Your task to perform on an android device: turn off sleep mode Image 0: 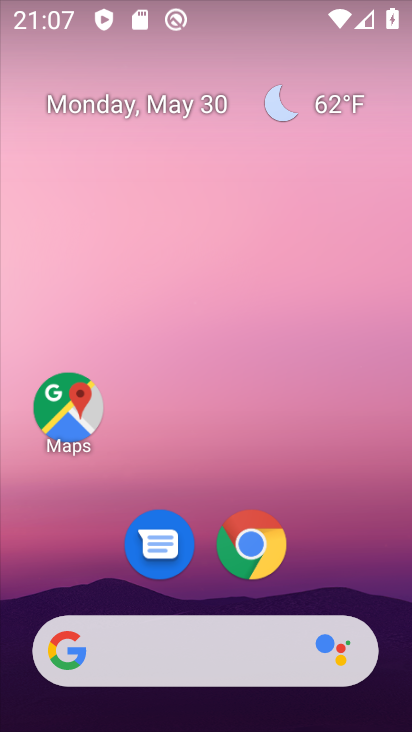
Step 0: drag from (361, 558) to (249, 64)
Your task to perform on an android device: turn off sleep mode Image 1: 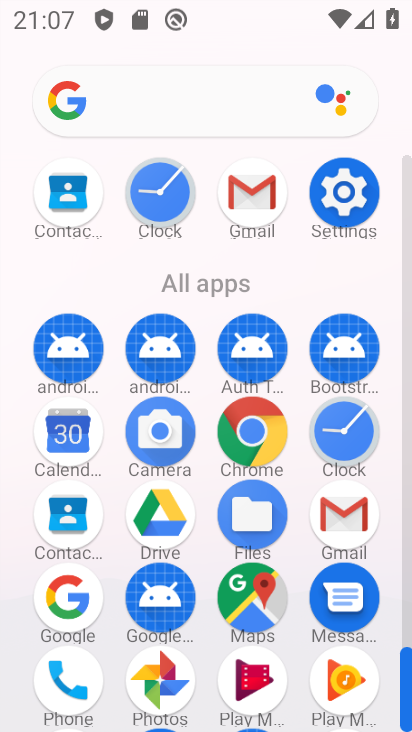
Step 1: click (346, 191)
Your task to perform on an android device: turn off sleep mode Image 2: 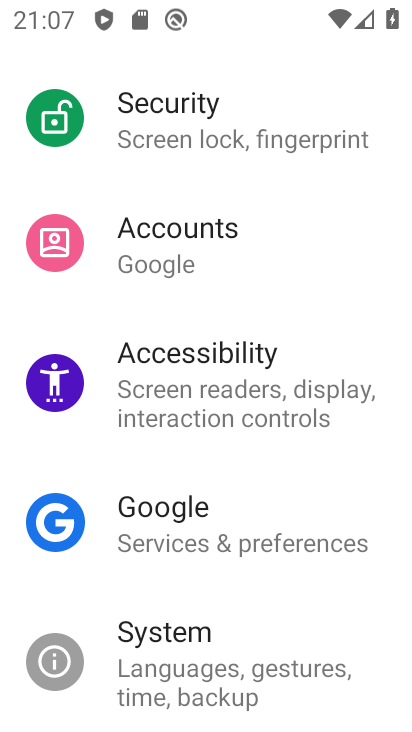
Step 2: drag from (270, 269) to (250, 412)
Your task to perform on an android device: turn off sleep mode Image 3: 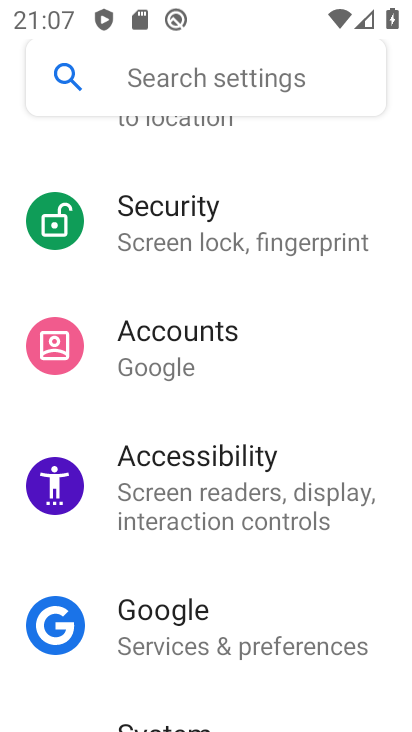
Step 3: drag from (258, 185) to (217, 402)
Your task to perform on an android device: turn off sleep mode Image 4: 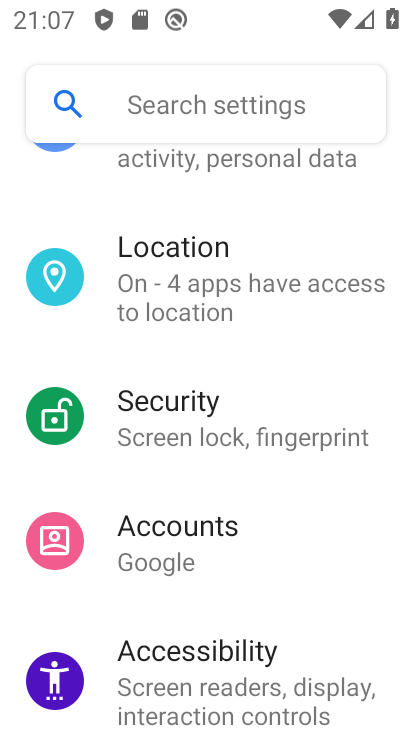
Step 4: drag from (263, 214) to (271, 340)
Your task to perform on an android device: turn off sleep mode Image 5: 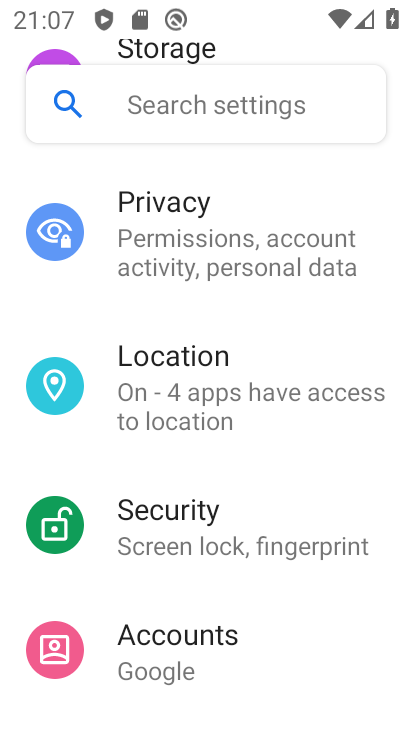
Step 5: drag from (198, 309) to (230, 478)
Your task to perform on an android device: turn off sleep mode Image 6: 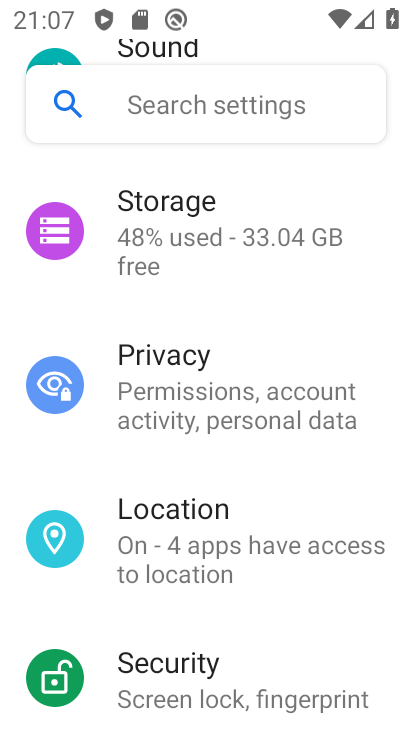
Step 6: drag from (222, 315) to (285, 430)
Your task to perform on an android device: turn off sleep mode Image 7: 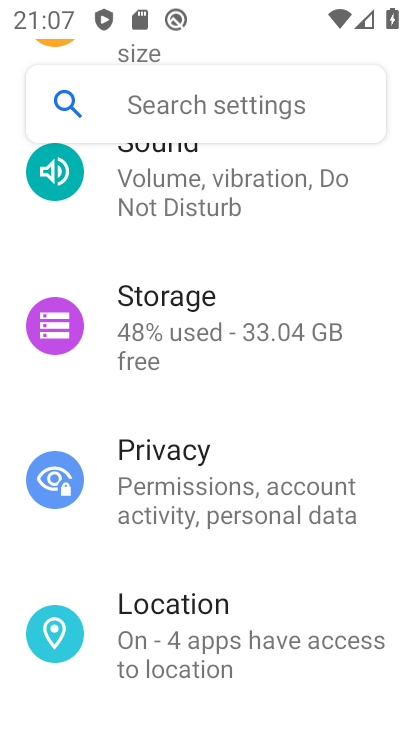
Step 7: drag from (210, 250) to (239, 388)
Your task to perform on an android device: turn off sleep mode Image 8: 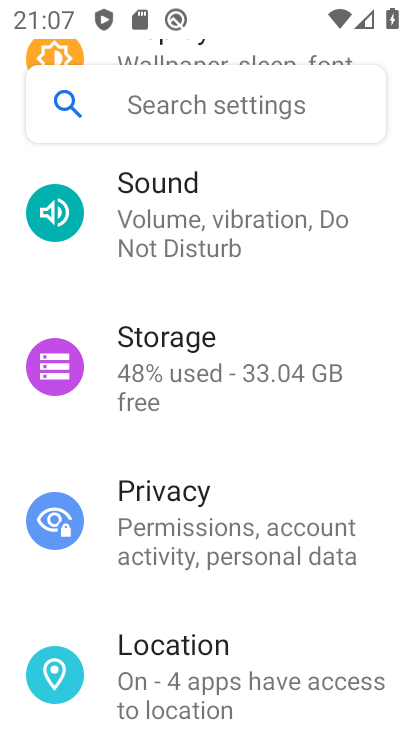
Step 8: drag from (270, 309) to (265, 412)
Your task to perform on an android device: turn off sleep mode Image 9: 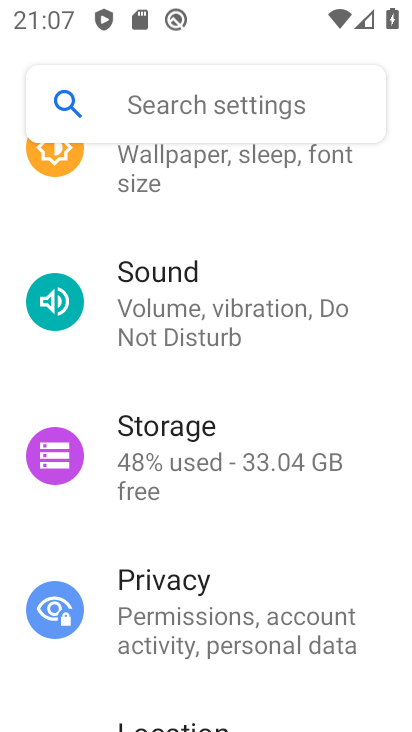
Step 9: drag from (256, 243) to (251, 364)
Your task to perform on an android device: turn off sleep mode Image 10: 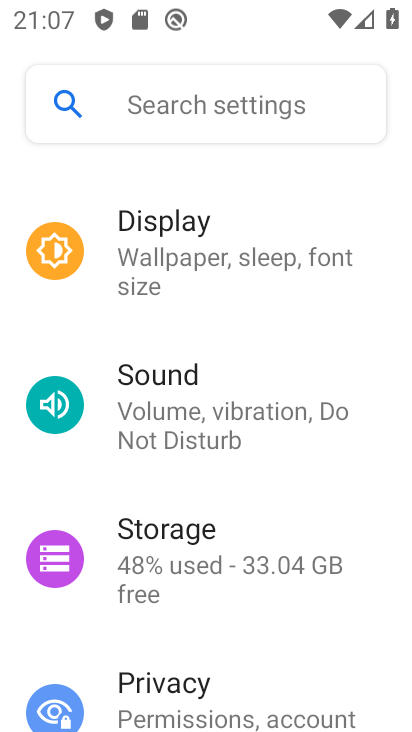
Step 10: drag from (230, 191) to (253, 306)
Your task to perform on an android device: turn off sleep mode Image 11: 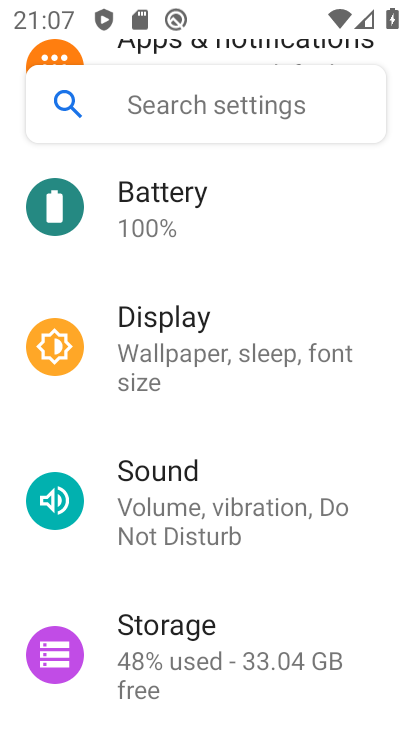
Step 11: drag from (247, 256) to (270, 356)
Your task to perform on an android device: turn off sleep mode Image 12: 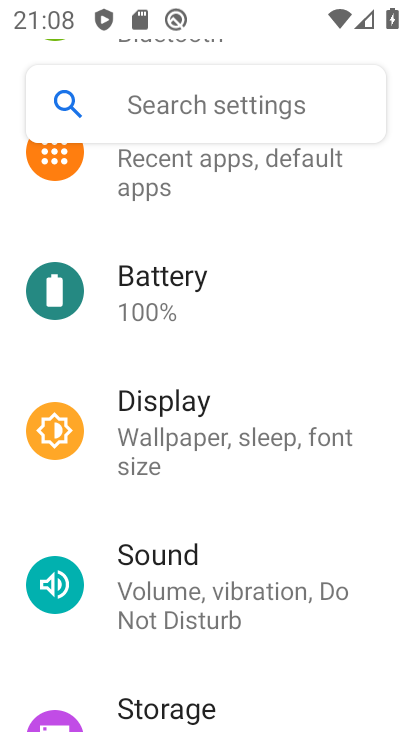
Step 12: drag from (215, 285) to (251, 377)
Your task to perform on an android device: turn off sleep mode Image 13: 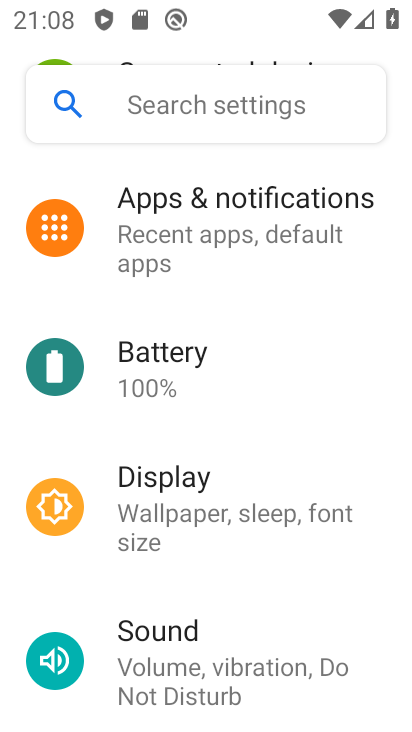
Step 13: click (202, 542)
Your task to perform on an android device: turn off sleep mode Image 14: 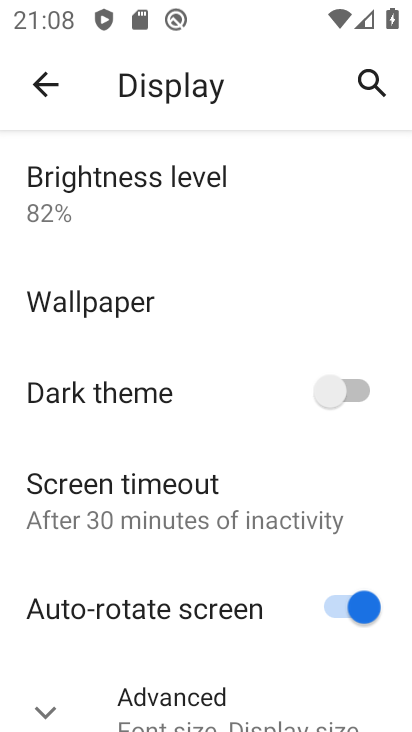
Step 14: click (193, 500)
Your task to perform on an android device: turn off sleep mode Image 15: 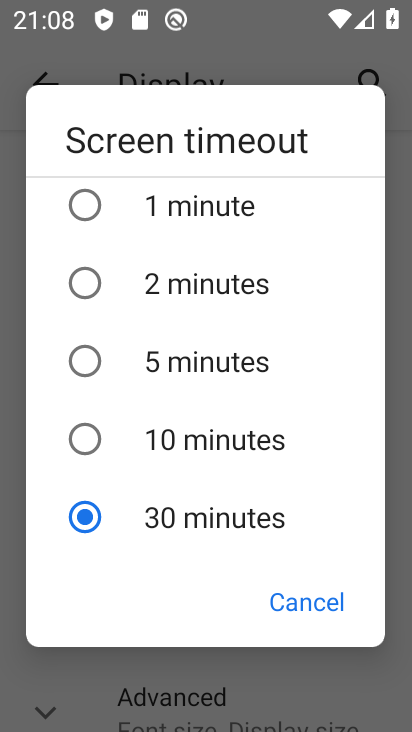
Step 15: drag from (195, 313) to (195, 451)
Your task to perform on an android device: turn off sleep mode Image 16: 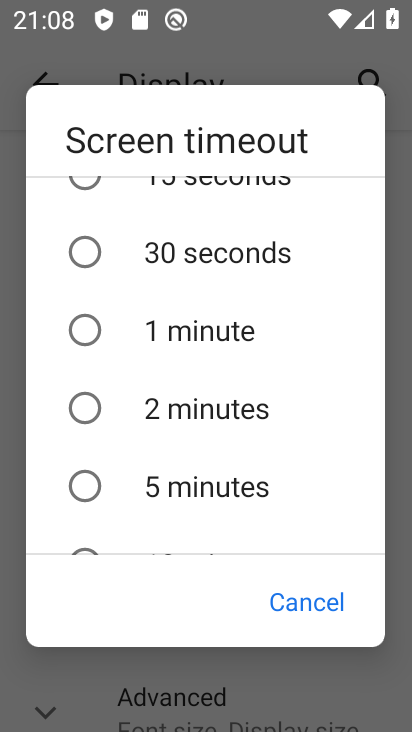
Step 16: drag from (190, 245) to (206, 346)
Your task to perform on an android device: turn off sleep mode Image 17: 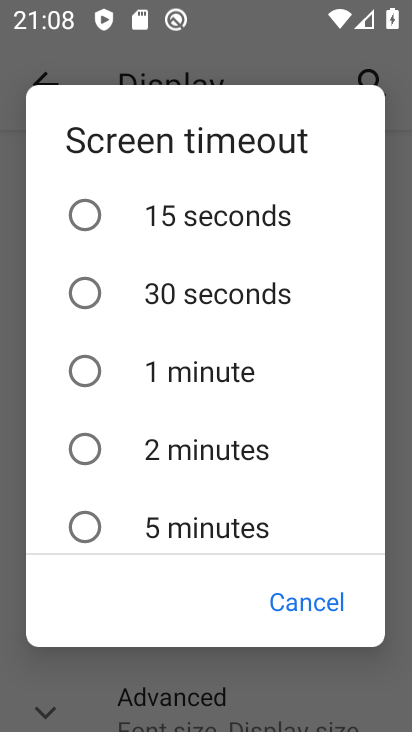
Step 17: drag from (166, 415) to (179, 238)
Your task to perform on an android device: turn off sleep mode Image 18: 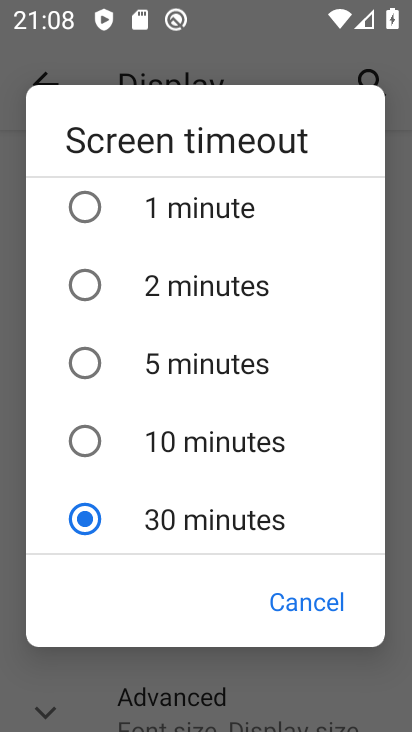
Step 18: drag from (234, 494) to (251, 359)
Your task to perform on an android device: turn off sleep mode Image 19: 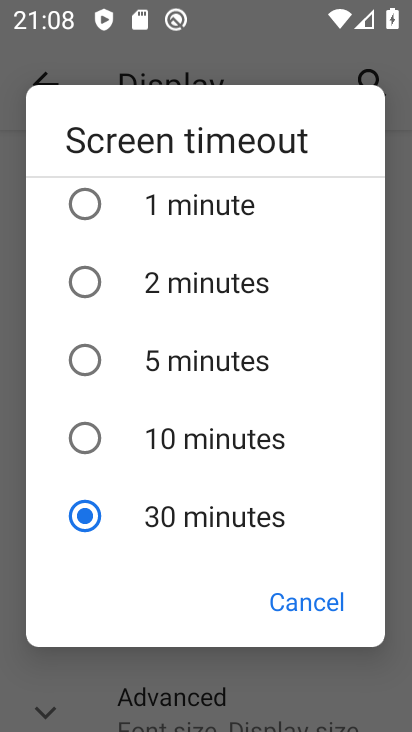
Step 19: click (325, 599)
Your task to perform on an android device: turn off sleep mode Image 20: 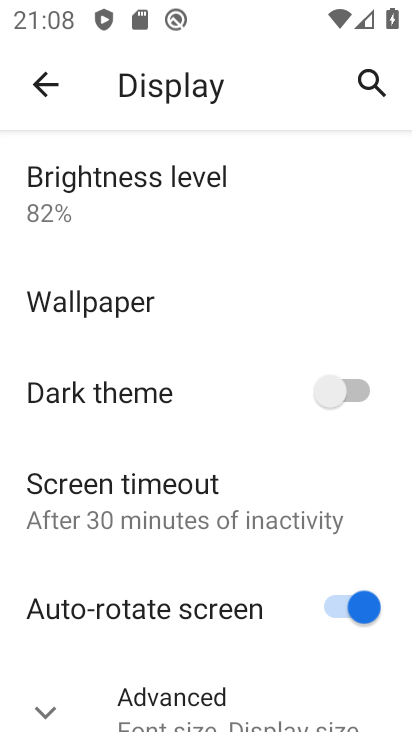
Step 20: drag from (172, 653) to (231, 431)
Your task to perform on an android device: turn off sleep mode Image 21: 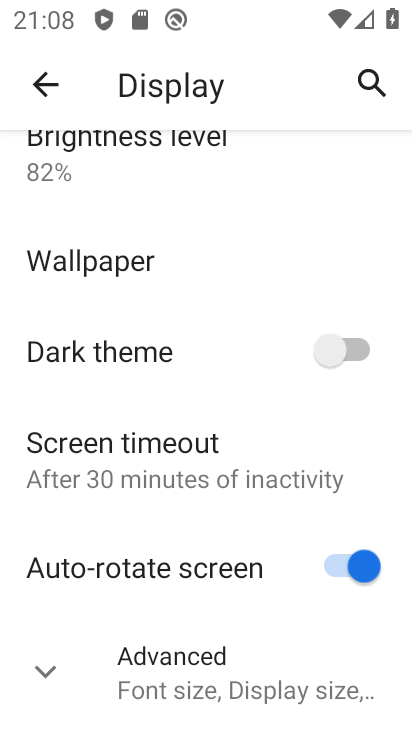
Step 21: click (202, 681)
Your task to perform on an android device: turn off sleep mode Image 22: 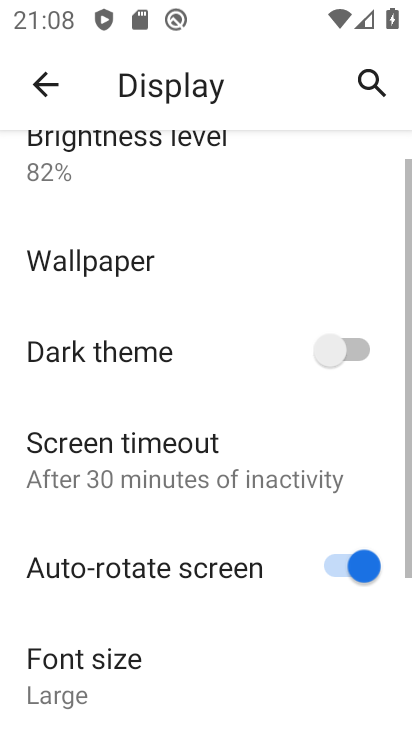
Step 22: task complete